Your task to perform on an android device: toggle improve location accuracy Image 0: 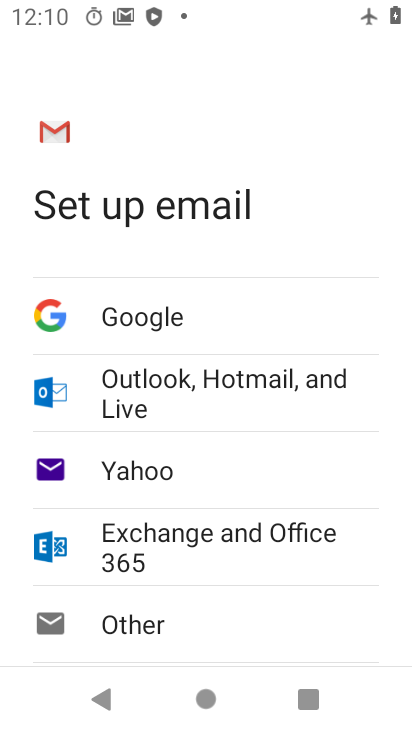
Step 0: press home button
Your task to perform on an android device: toggle improve location accuracy Image 1: 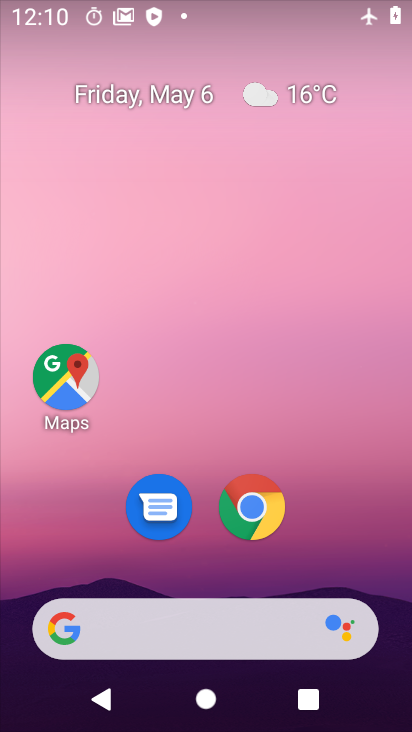
Step 1: drag from (193, 728) to (189, 238)
Your task to perform on an android device: toggle improve location accuracy Image 2: 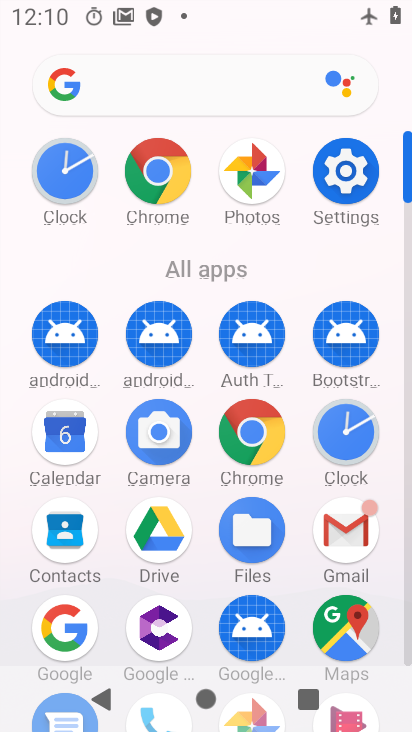
Step 2: click (338, 176)
Your task to perform on an android device: toggle improve location accuracy Image 3: 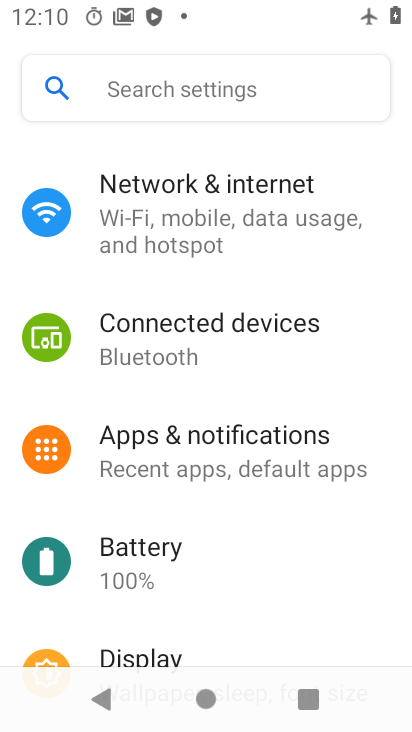
Step 3: drag from (198, 634) to (220, 149)
Your task to perform on an android device: toggle improve location accuracy Image 4: 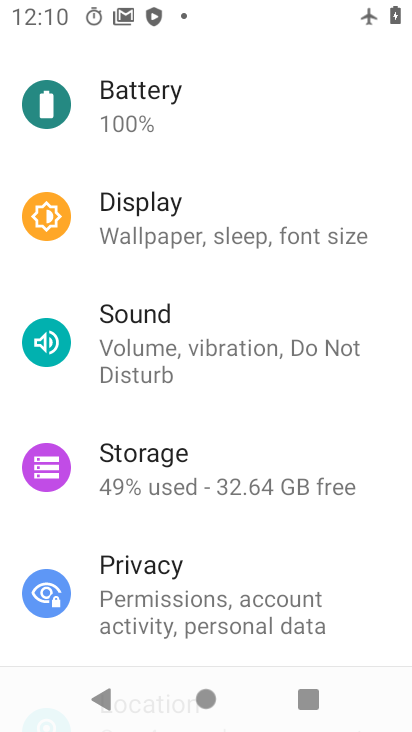
Step 4: drag from (214, 630) to (218, 228)
Your task to perform on an android device: toggle improve location accuracy Image 5: 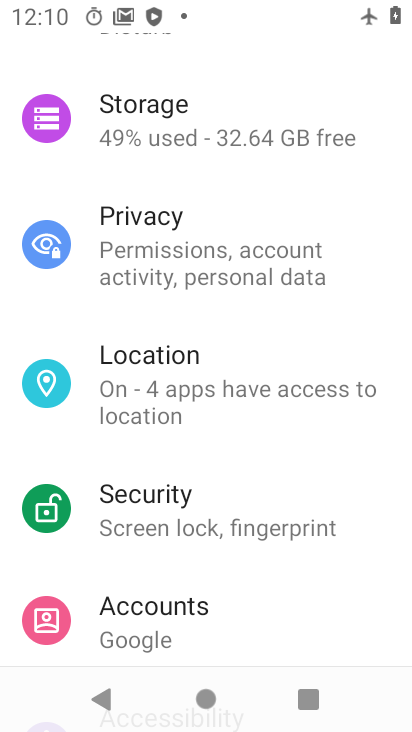
Step 5: click (151, 387)
Your task to perform on an android device: toggle improve location accuracy Image 6: 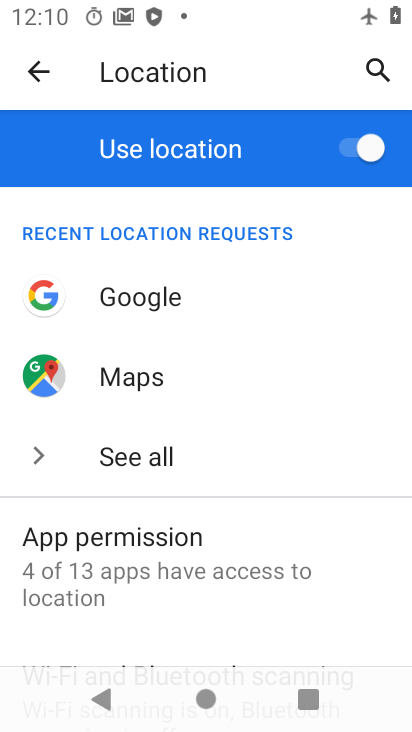
Step 6: drag from (174, 632) to (188, 252)
Your task to perform on an android device: toggle improve location accuracy Image 7: 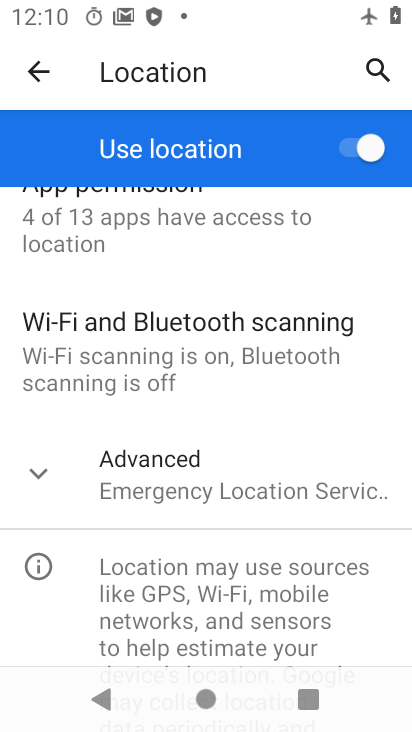
Step 7: click (224, 481)
Your task to perform on an android device: toggle improve location accuracy Image 8: 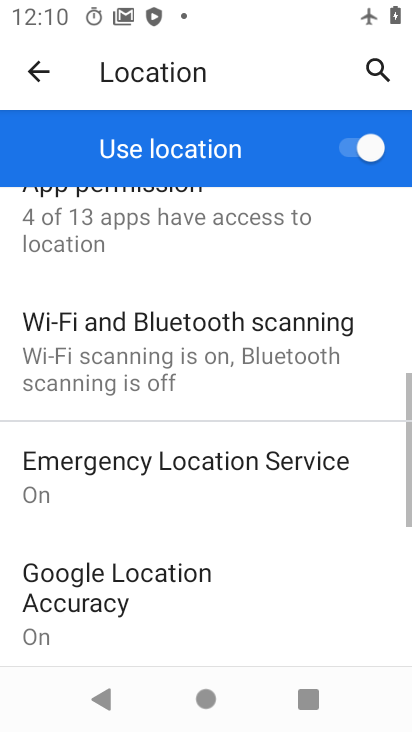
Step 8: drag from (215, 634) to (211, 486)
Your task to perform on an android device: toggle improve location accuracy Image 9: 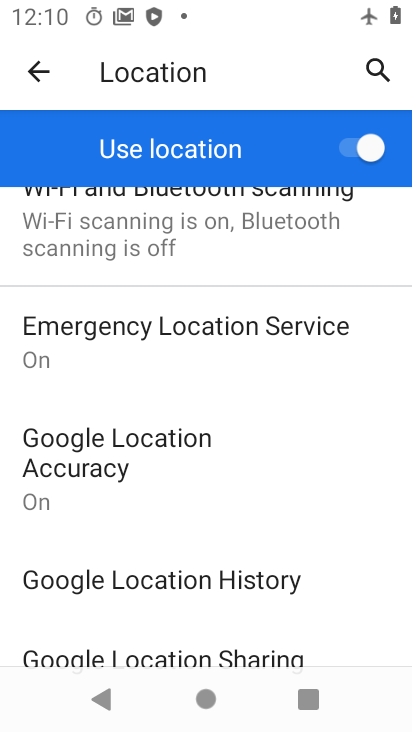
Step 9: click (95, 452)
Your task to perform on an android device: toggle improve location accuracy Image 10: 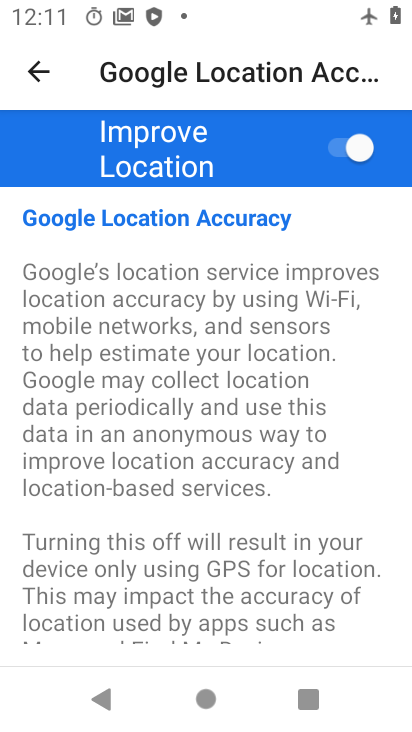
Step 10: click (336, 145)
Your task to perform on an android device: toggle improve location accuracy Image 11: 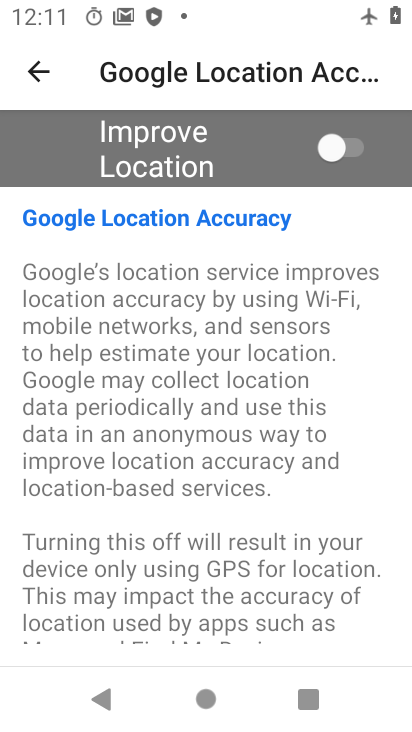
Step 11: task complete